Your task to perform on an android device: Open battery settings Image 0: 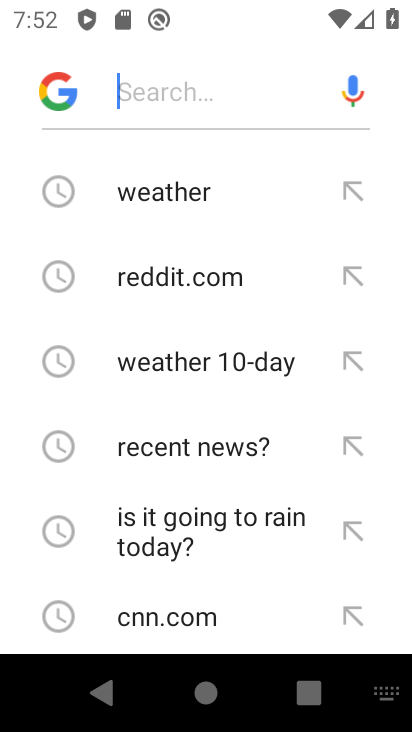
Step 0: press home button
Your task to perform on an android device: Open battery settings Image 1: 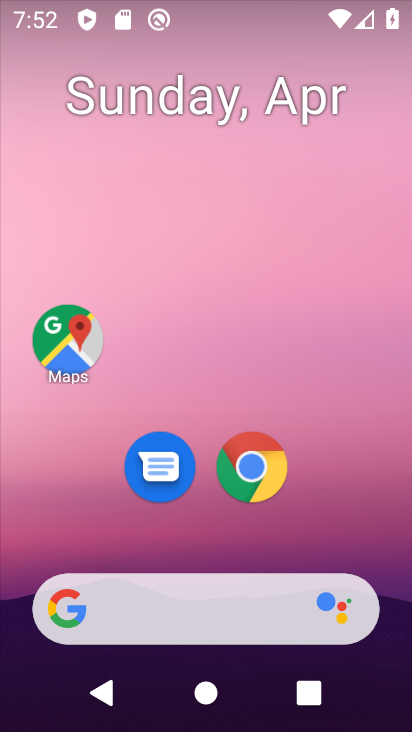
Step 1: drag from (300, 492) to (308, 54)
Your task to perform on an android device: Open battery settings Image 2: 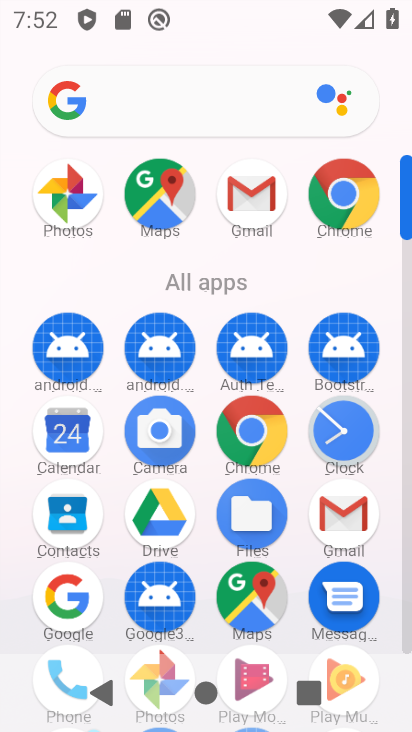
Step 2: drag from (184, 509) to (240, 184)
Your task to perform on an android device: Open battery settings Image 3: 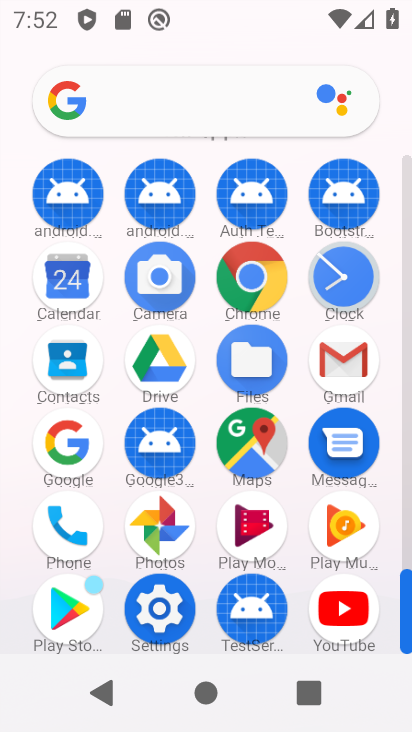
Step 3: click (164, 604)
Your task to perform on an android device: Open battery settings Image 4: 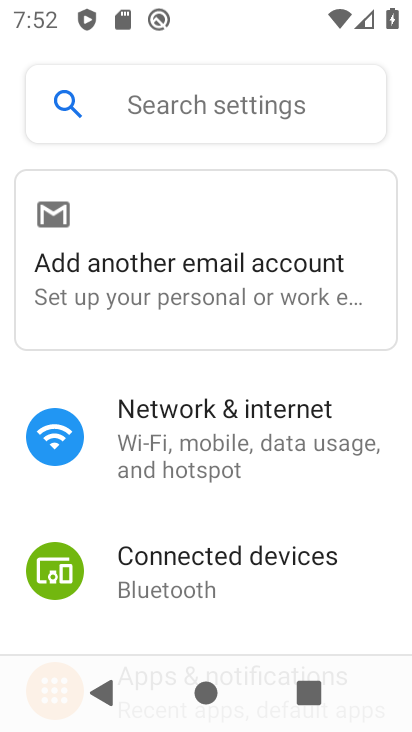
Step 4: drag from (218, 573) to (277, 221)
Your task to perform on an android device: Open battery settings Image 5: 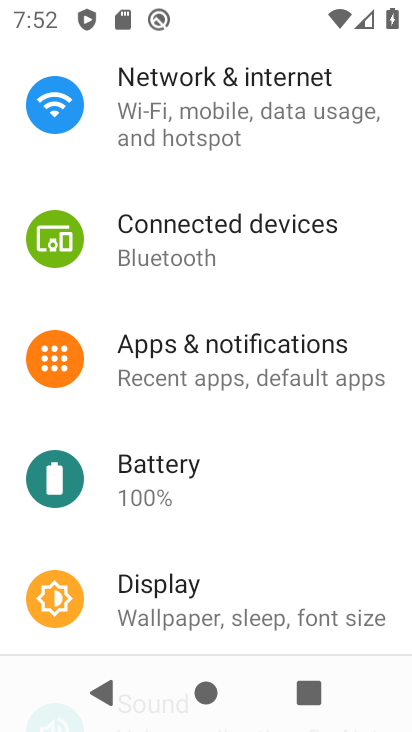
Step 5: click (231, 463)
Your task to perform on an android device: Open battery settings Image 6: 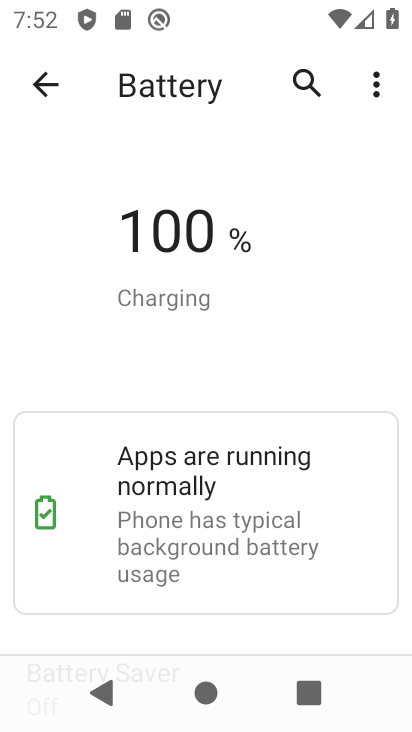
Step 6: task complete